Your task to perform on an android device: turn on notifications settings in the gmail app Image 0: 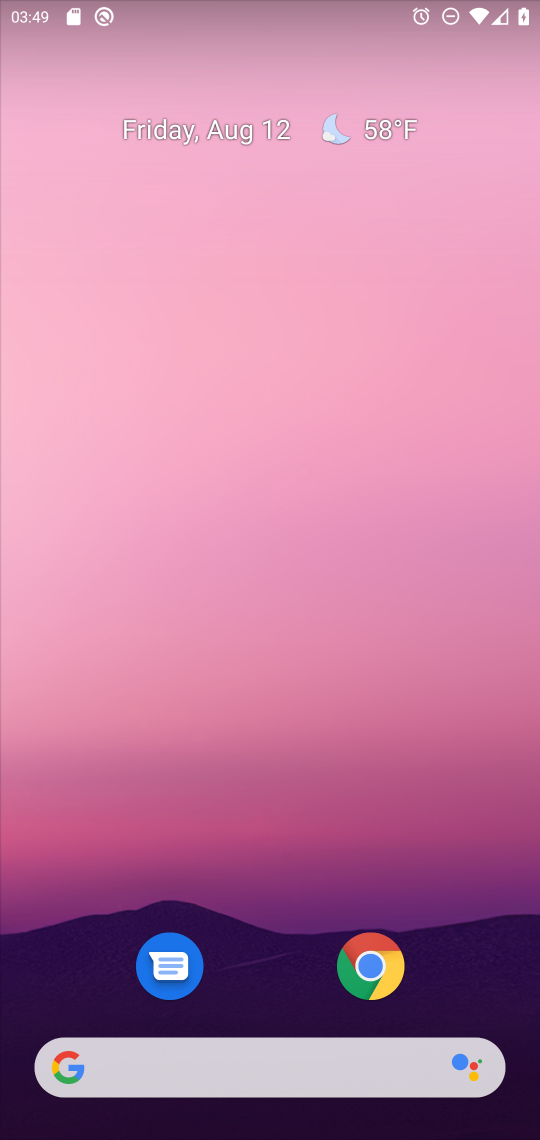
Step 0: drag from (250, 779) to (288, 107)
Your task to perform on an android device: turn on notifications settings in the gmail app Image 1: 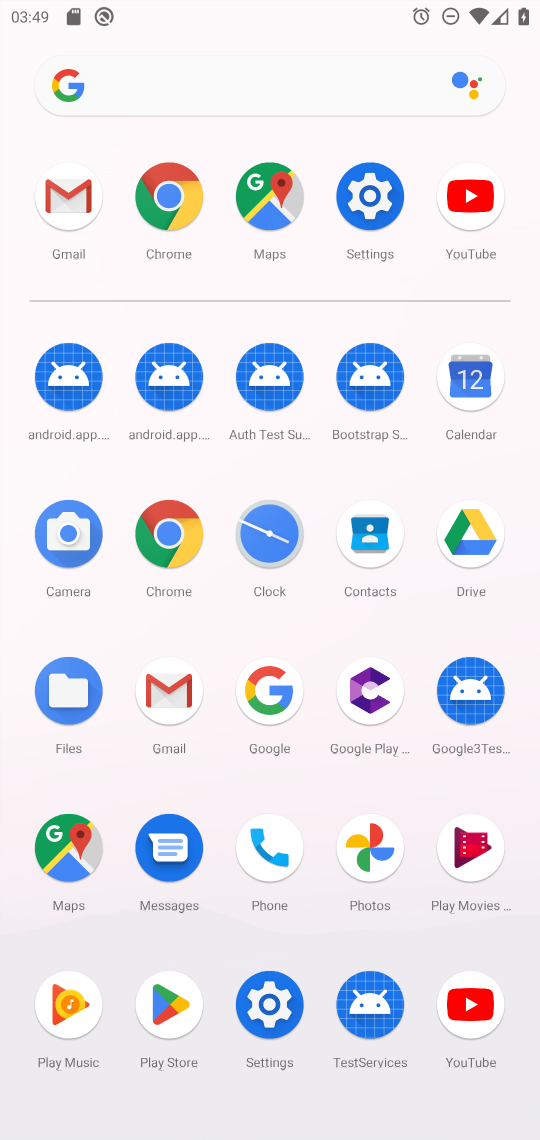
Step 1: click (165, 681)
Your task to perform on an android device: turn on notifications settings in the gmail app Image 2: 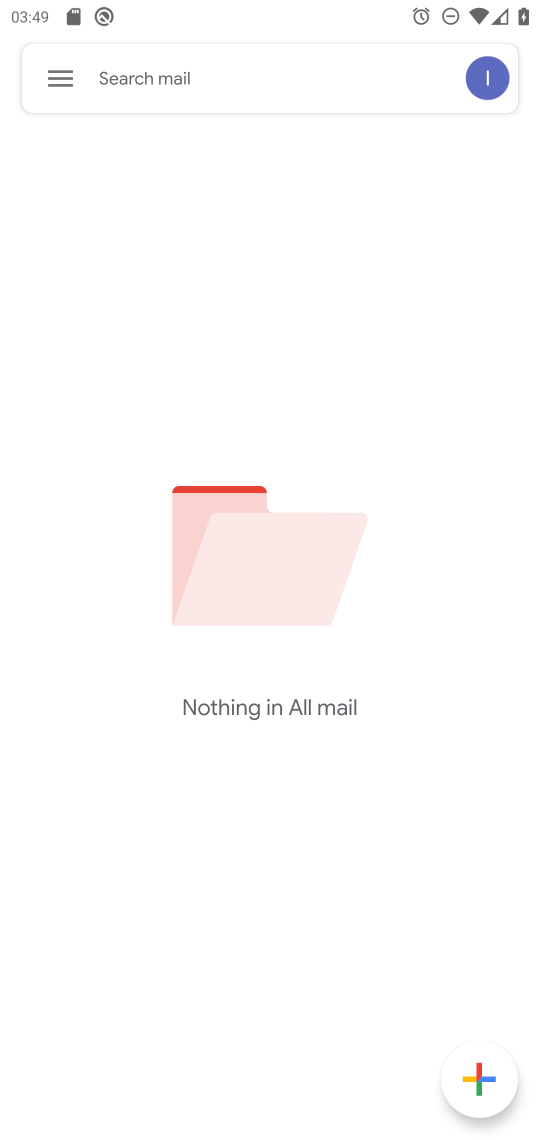
Step 2: click (61, 85)
Your task to perform on an android device: turn on notifications settings in the gmail app Image 3: 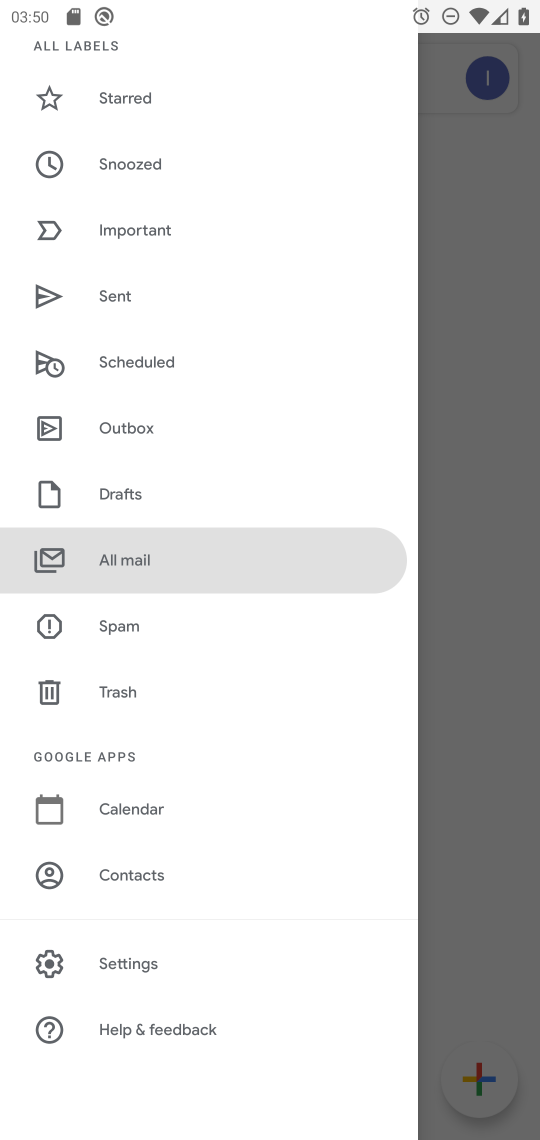
Step 3: click (111, 966)
Your task to perform on an android device: turn on notifications settings in the gmail app Image 4: 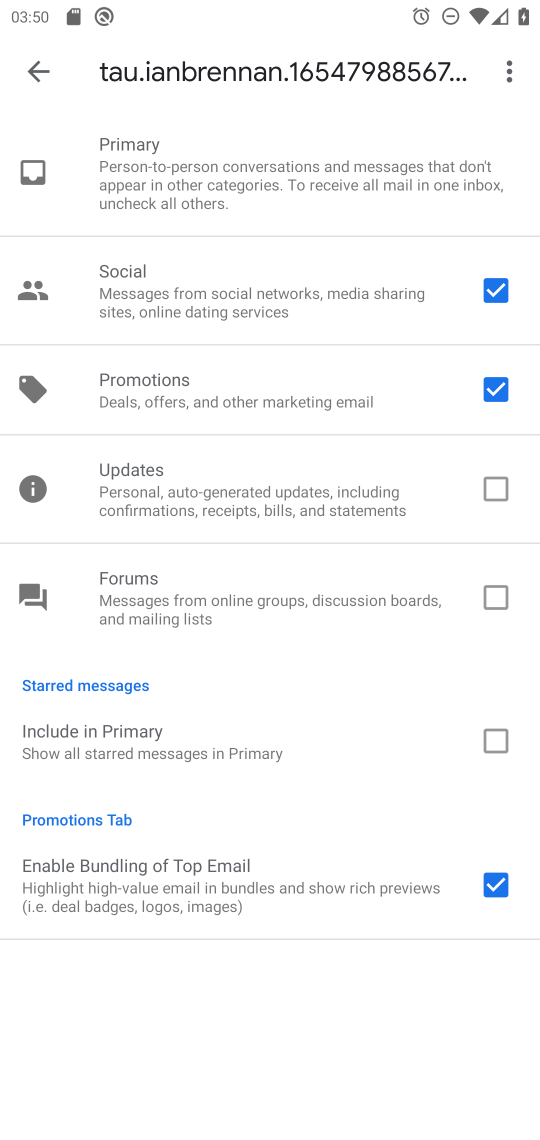
Step 4: click (31, 61)
Your task to perform on an android device: turn on notifications settings in the gmail app Image 5: 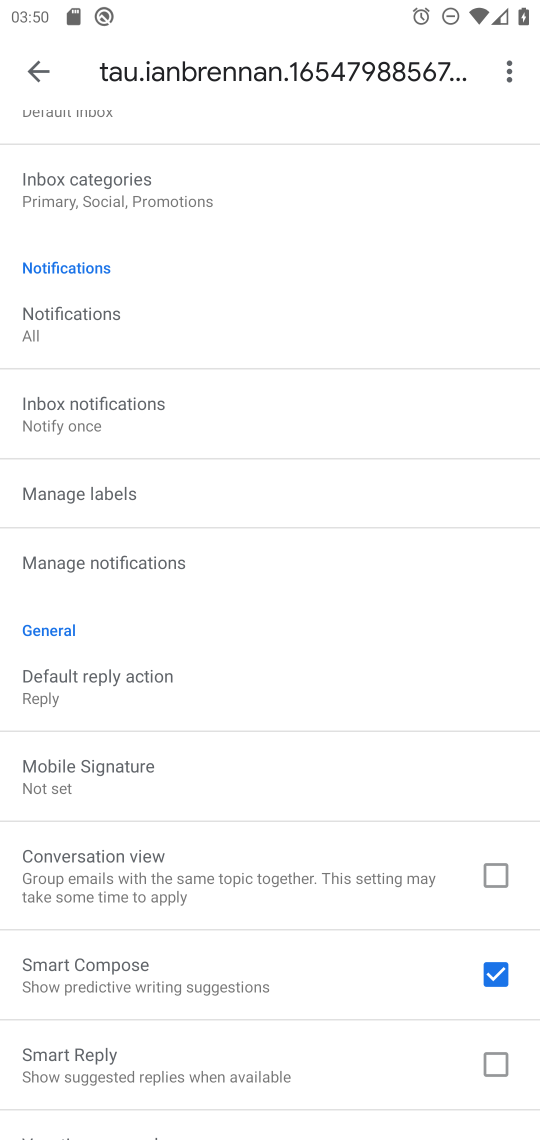
Step 5: click (120, 557)
Your task to perform on an android device: turn on notifications settings in the gmail app Image 6: 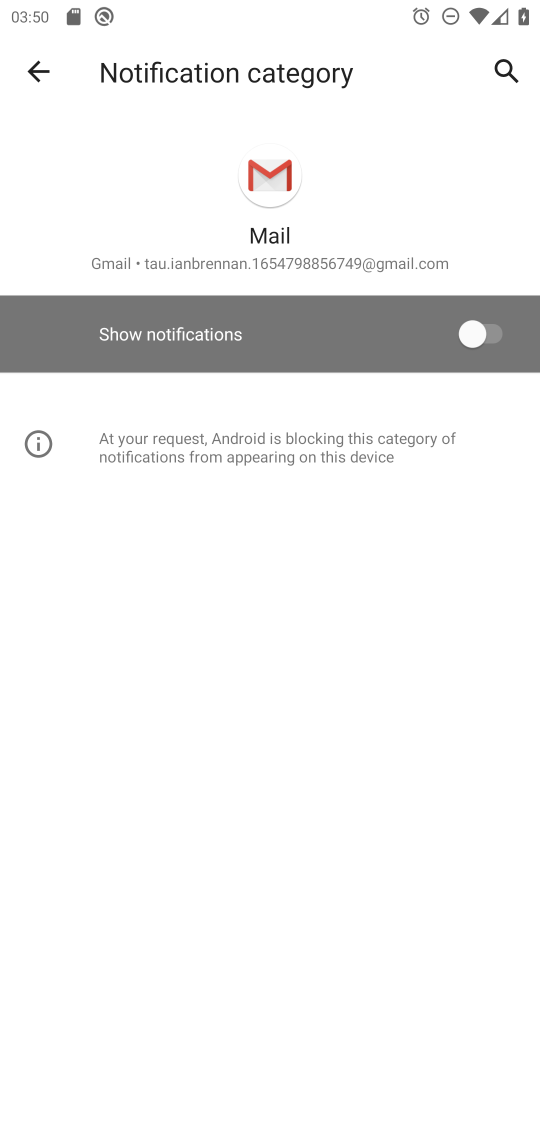
Step 6: click (457, 329)
Your task to perform on an android device: turn on notifications settings in the gmail app Image 7: 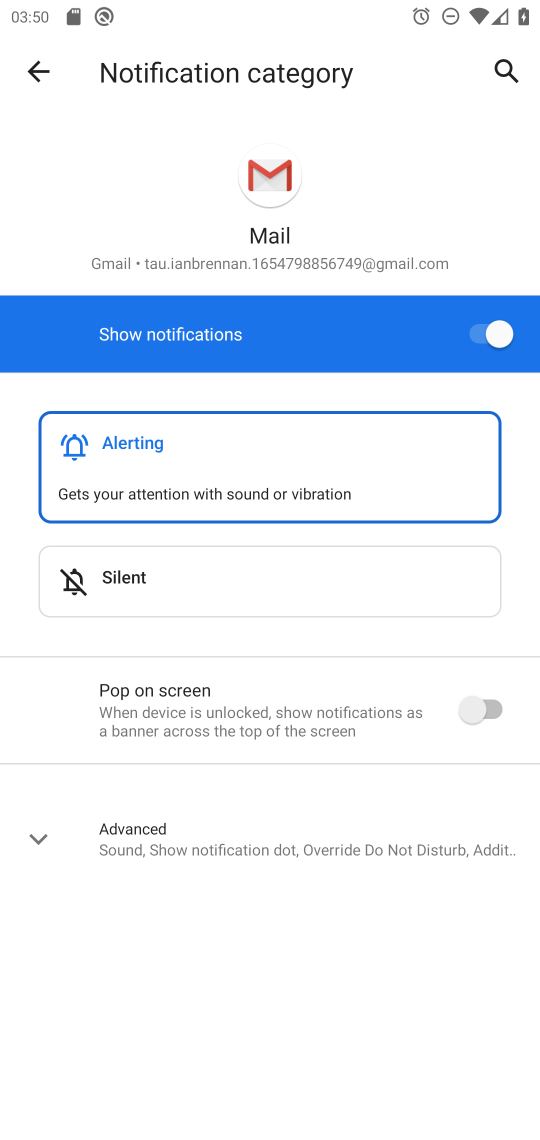
Step 7: task complete